Your task to perform on an android device: Open maps Image 0: 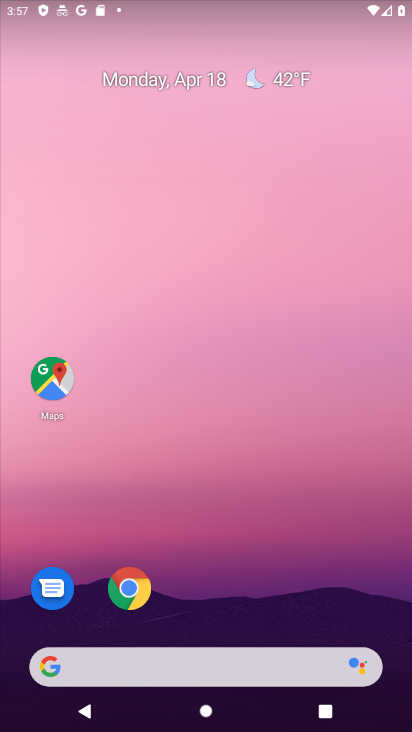
Step 0: drag from (279, 407) to (279, 73)
Your task to perform on an android device: Open maps Image 1: 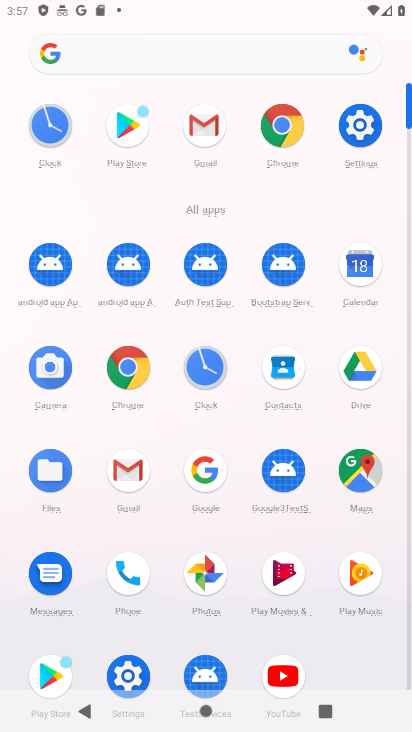
Step 1: click (373, 476)
Your task to perform on an android device: Open maps Image 2: 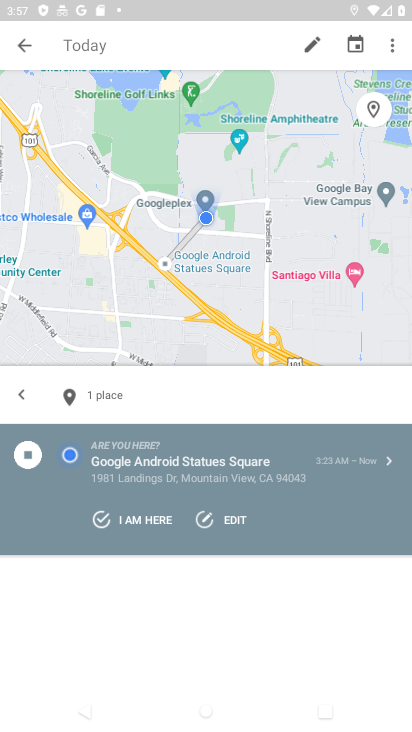
Step 2: task complete